Your task to perform on an android device: check out phone information Image 0: 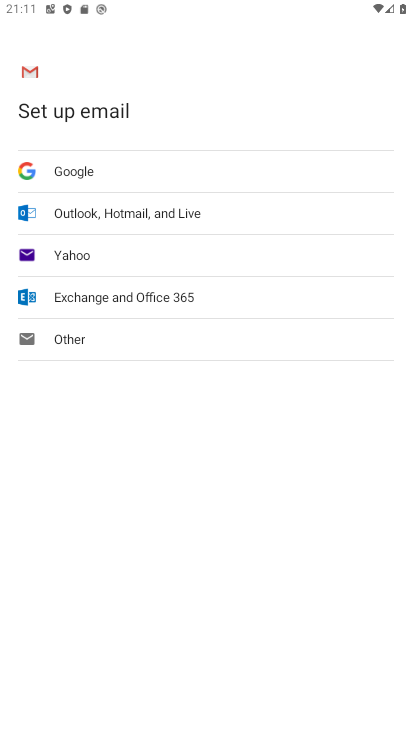
Step 0: press back button
Your task to perform on an android device: check out phone information Image 1: 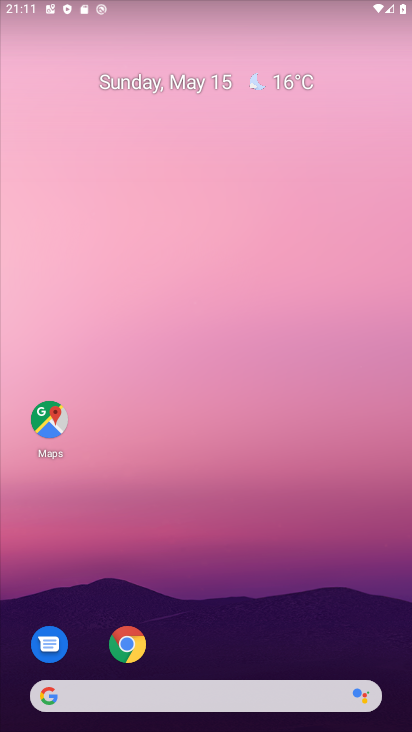
Step 1: drag from (190, 643) to (251, 67)
Your task to perform on an android device: check out phone information Image 2: 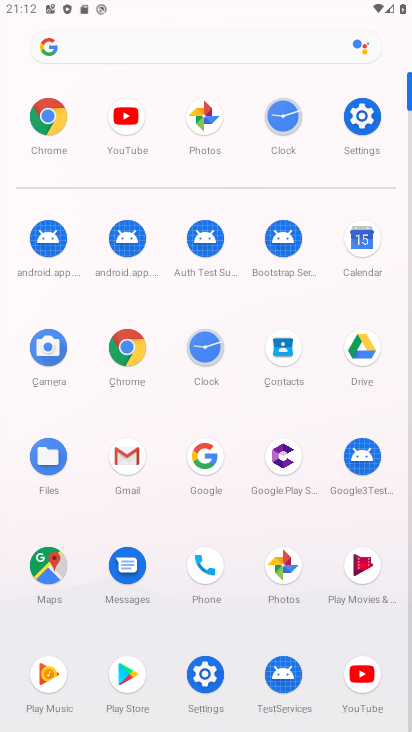
Step 2: click (365, 115)
Your task to perform on an android device: check out phone information Image 3: 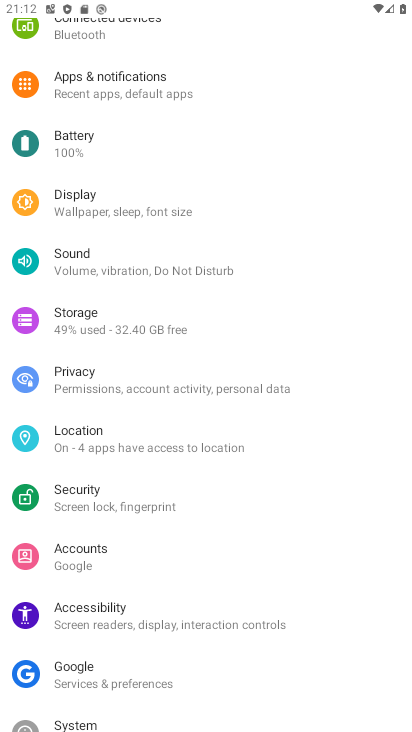
Step 3: drag from (166, 652) to (246, 176)
Your task to perform on an android device: check out phone information Image 4: 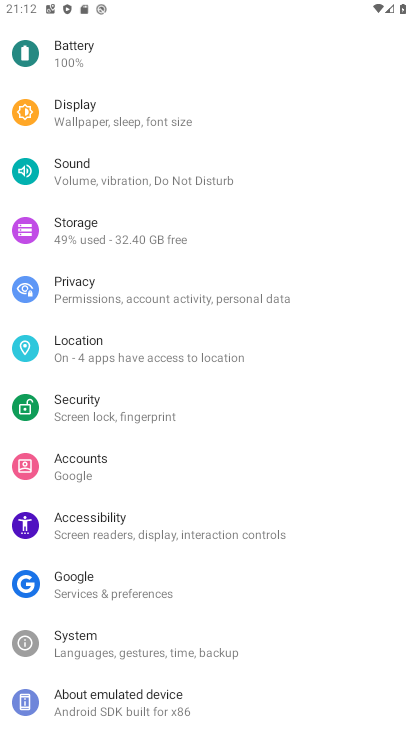
Step 4: drag from (171, 248) to (266, 197)
Your task to perform on an android device: check out phone information Image 5: 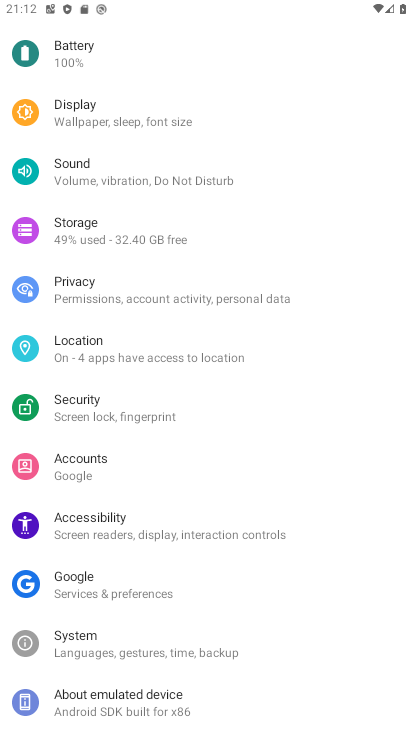
Step 5: drag from (164, 577) to (236, 107)
Your task to perform on an android device: check out phone information Image 6: 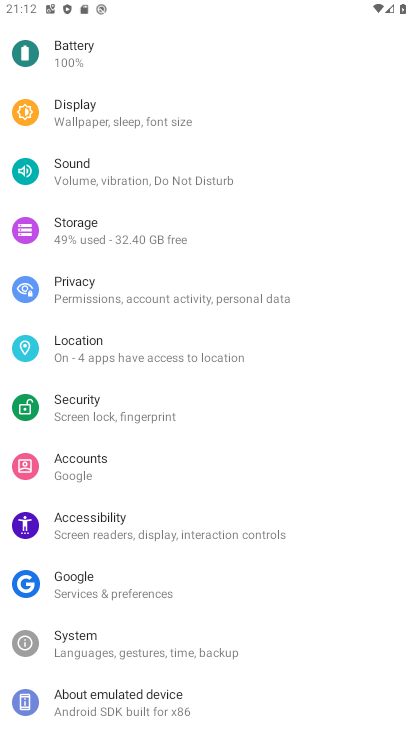
Step 6: drag from (146, 643) to (242, 72)
Your task to perform on an android device: check out phone information Image 7: 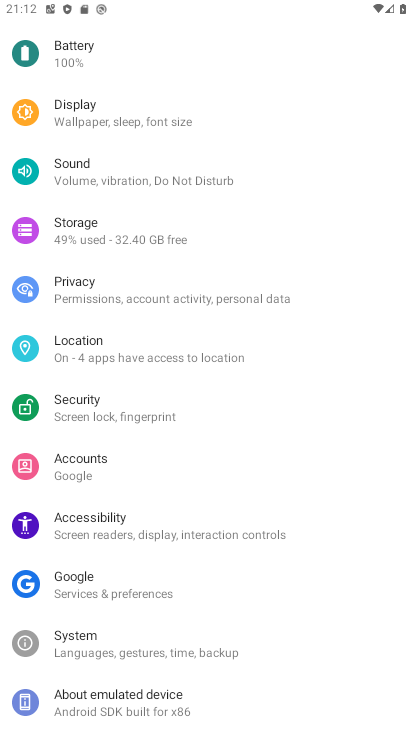
Step 7: click (194, 694)
Your task to perform on an android device: check out phone information Image 8: 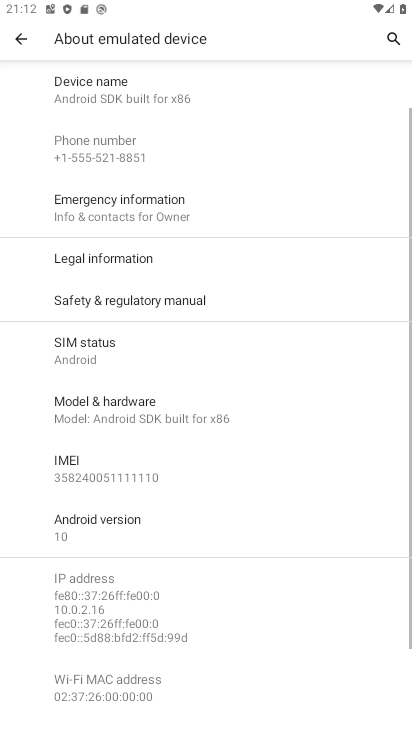
Step 8: task complete